Your task to perform on an android device: How much does the new iPad cost? Image 0: 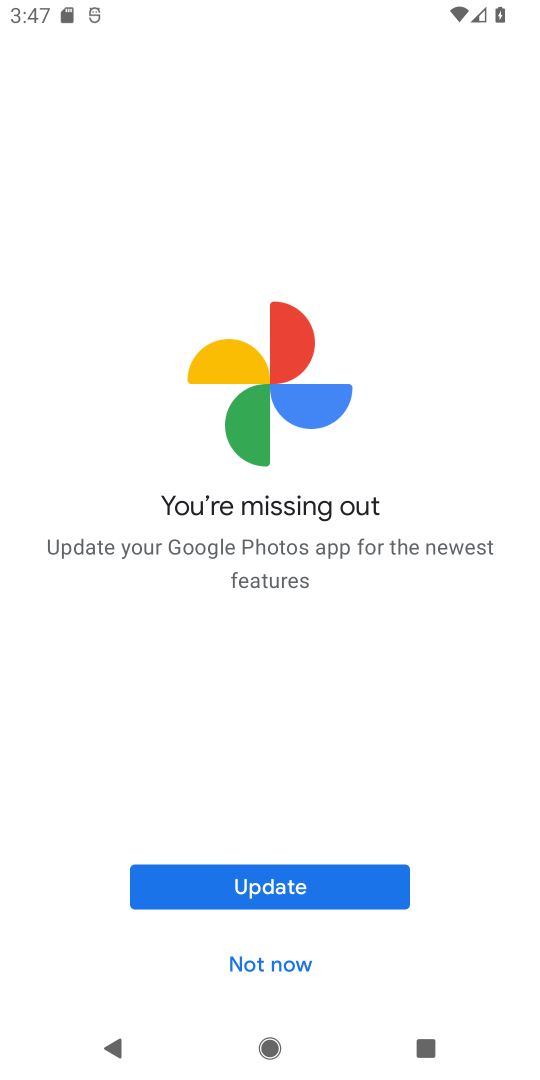
Step 0: press home button
Your task to perform on an android device: How much does the new iPad cost? Image 1: 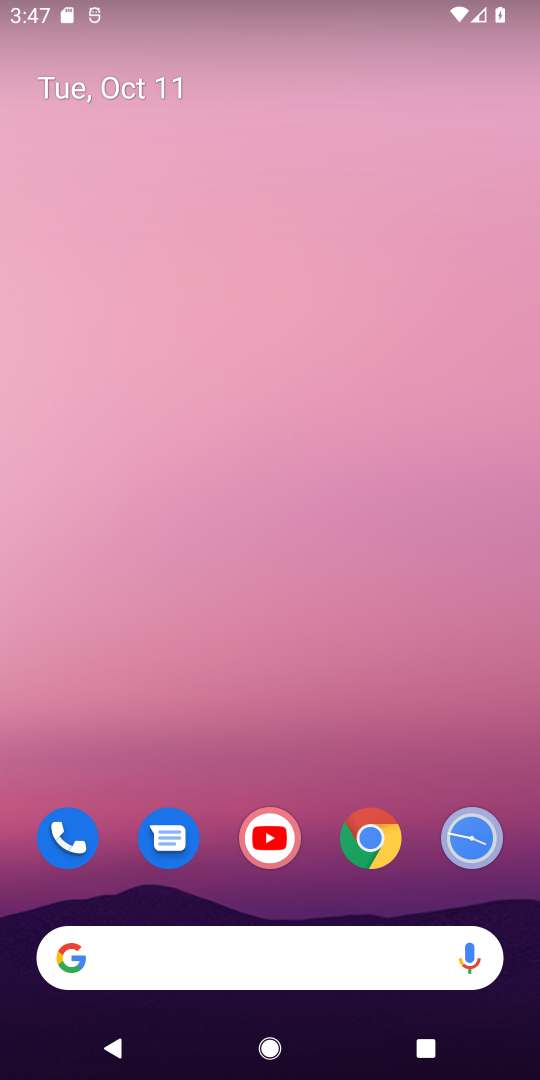
Step 1: click (189, 957)
Your task to perform on an android device: How much does the new iPad cost? Image 2: 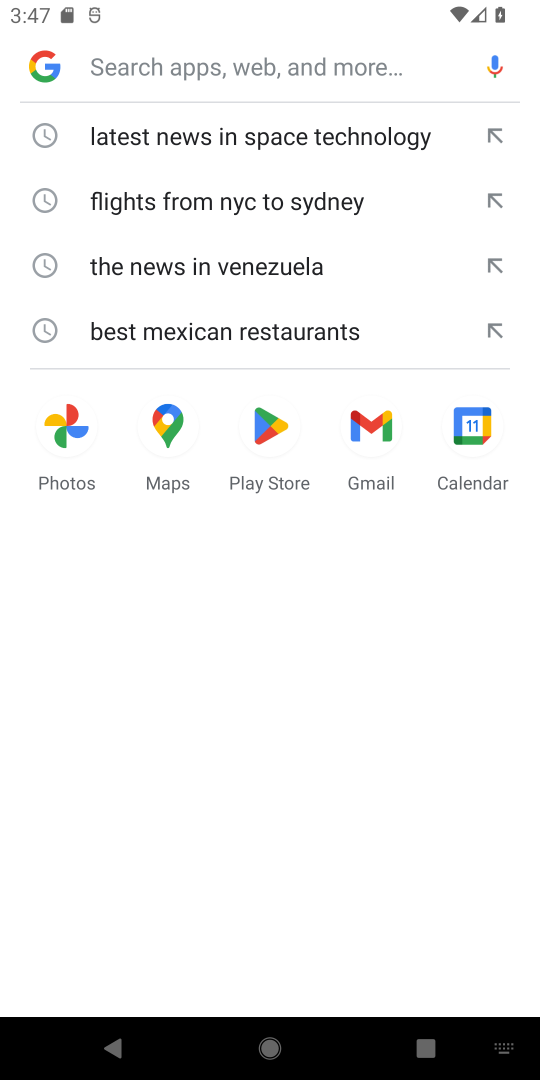
Step 2: type "new iPad cost"
Your task to perform on an android device: How much does the new iPad cost? Image 3: 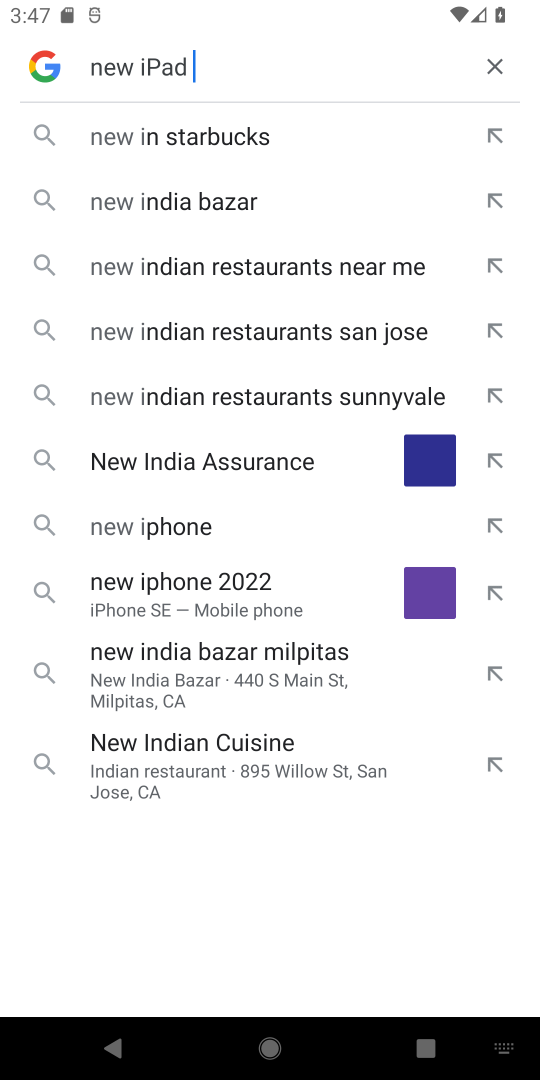
Step 3: type ""
Your task to perform on an android device: How much does the new iPad cost? Image 4: 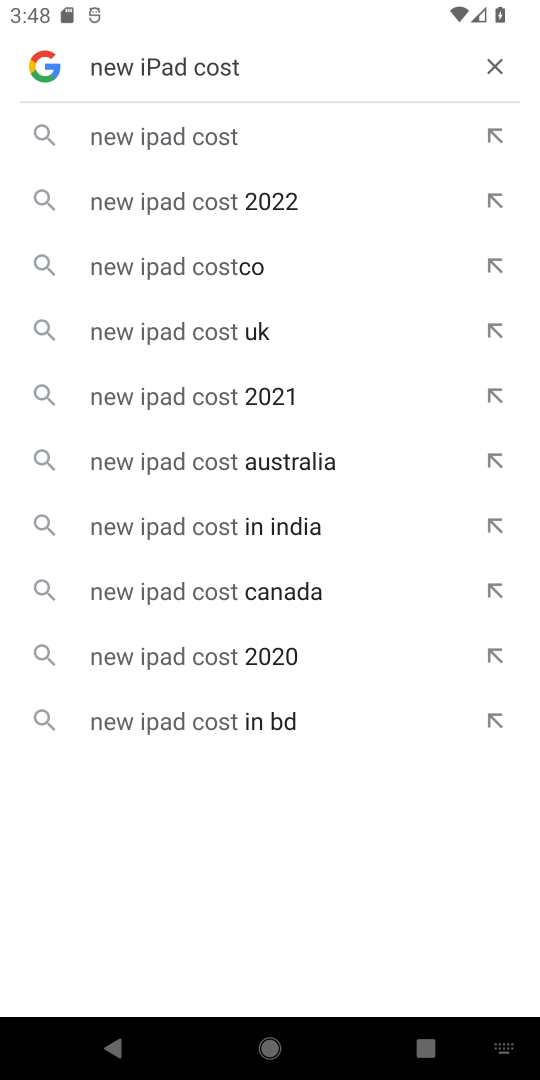
Step 4: click (115, 149)
Your task to perform on an android device: How much does the new iPad cost? Image 5: 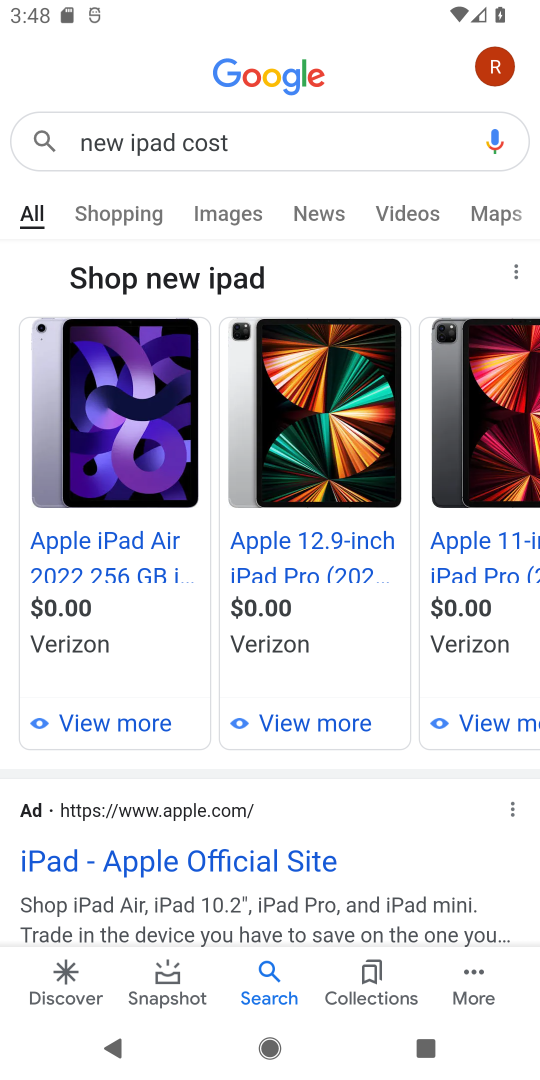
Step 5: task complete